Your task to perform on an android device: add a label to a message in the gmail app Image 0: 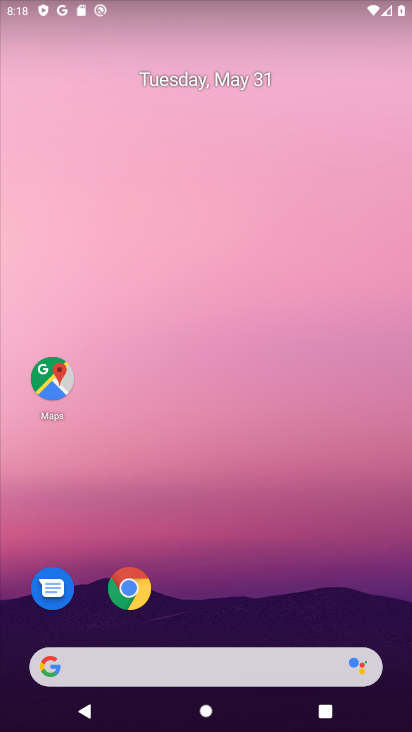
Step 0: drag from (225, 628) to (182, 190)
Your task to perform on an android device: add a label to a message in the gmail app Image 1: 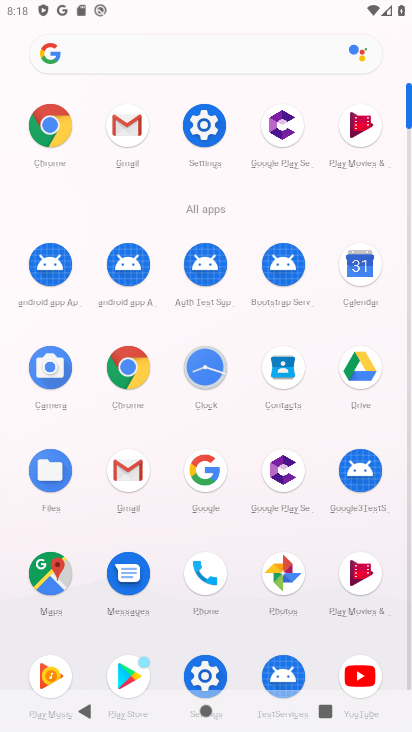
Step 1: click (136, 136)
Your task to perform on an android device: add a label to a message in the gmail app Image 2: 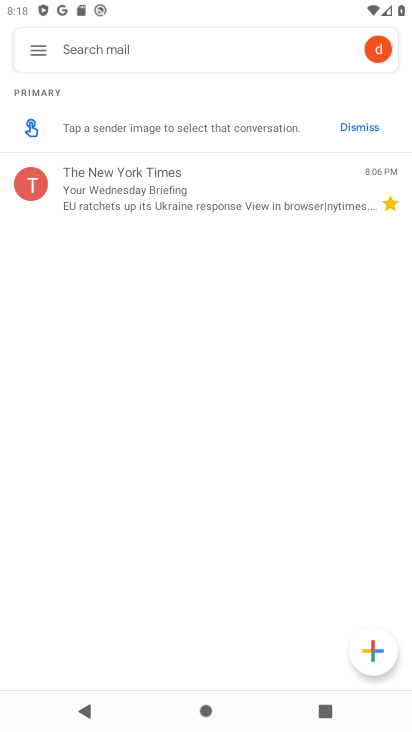
Step 2: click (149, 198)
Your task to perform on an android device: add a label to a message in the gmail app Image 3: 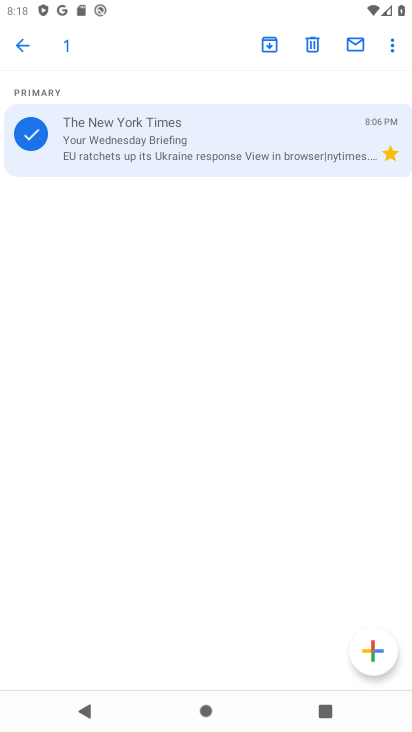
Step 3: click (404, 54)
Your task to perform on an android device: add a label to a message in the gmail app Image 4: 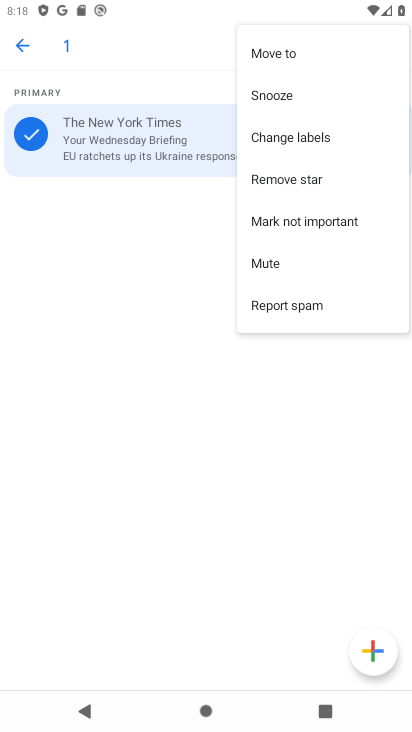
Step 4: click (372, 135)
Your task to perform on an android device: add a label to a message in the gmail app Image 5: 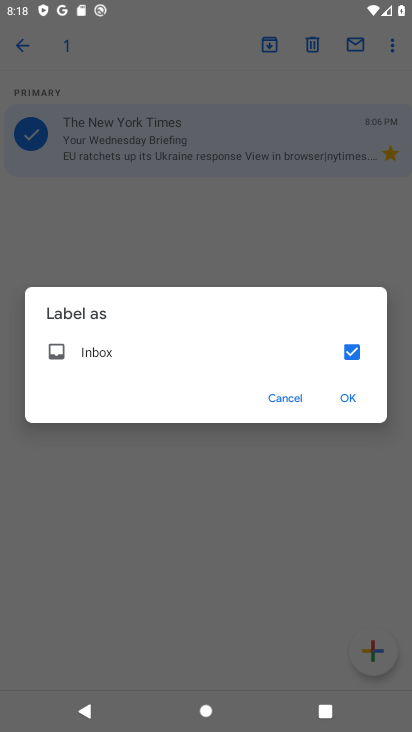
Step 5: click (360, 346)
Your task to perform on an android device: add a label to a message in the gmail app Image 6: 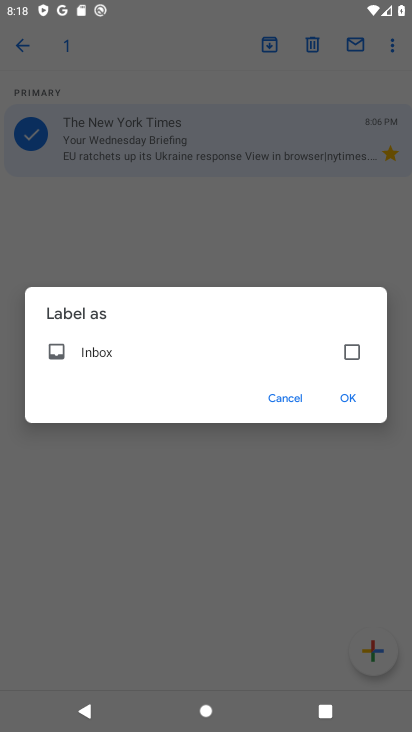
Step 6: click (349, 388)
Your task to perform on an android device: add a label to a message in the gmail app Image 7: 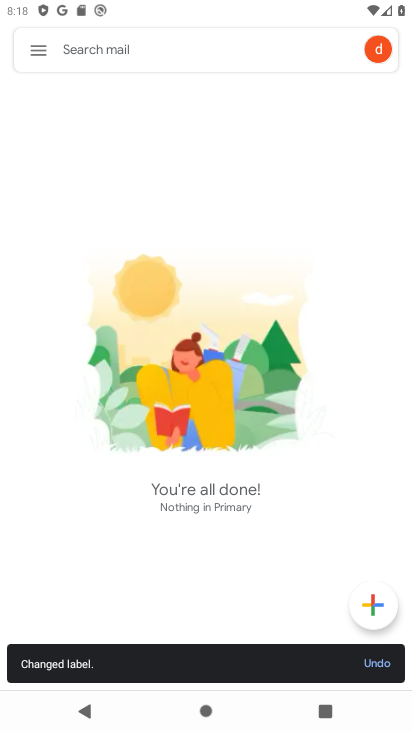
Step 7: task complete